Your task to perform on an android device: uninstall "Facebook Lite" Image 0: 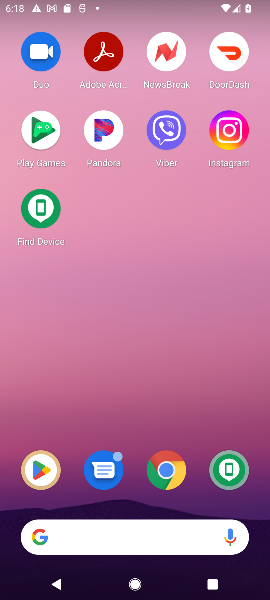
Step 0: press home button
Your task to perform on an android device: uninstall "Facebook Lite" Image 1: 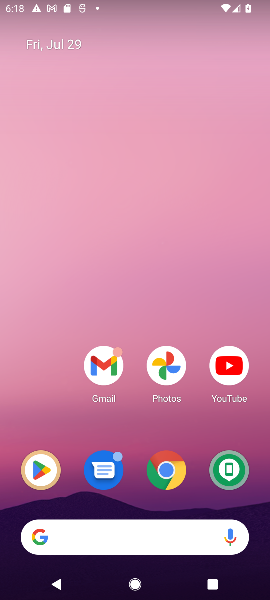
Step 1: drag from (199, 416) to (207, 30)
Your task to perform on an android device: uninstall "Facebook Lite" Image 2: 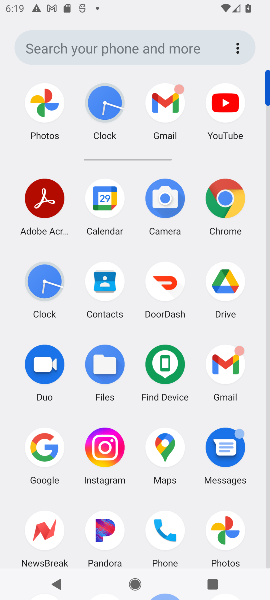
Step 2: drag from (188, 492) to (197, 294)
Your task to perform on an android device: uninstall "Facebook Lite" Image 3: 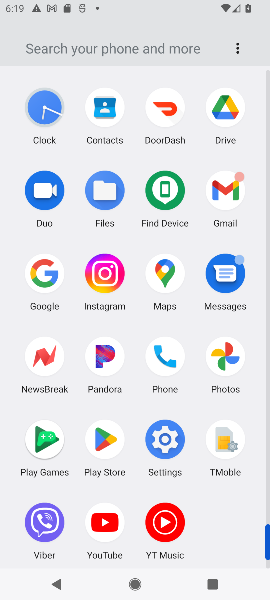
Step 3: click (111, 435)
Your task to perform on an android device: uninstall "Facebook Lite" Image 4: 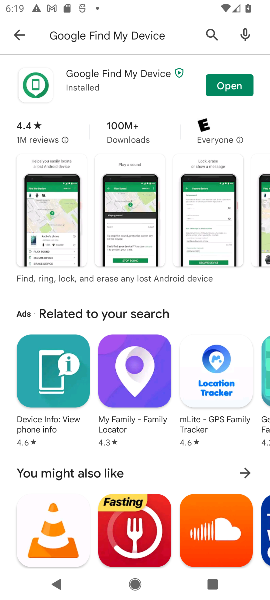
Step 4: click (128, 35)
Your task to perform on an android device: uninstall "Facebook Lite" Image 5: 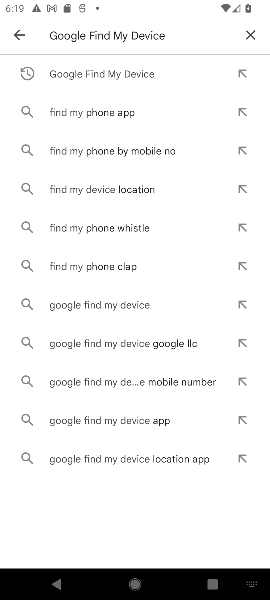
Step 5: click (251, 42)
Your task to perform on an android device: uninstall "Facebook Lite" Image 6: 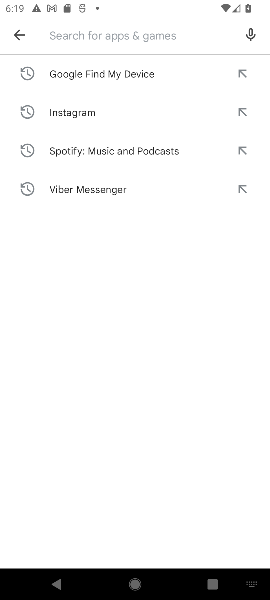
Step 6: type "Facebook Lite"
Your task to perform on an android device: uninstall "Facebook Lite" Image 7: 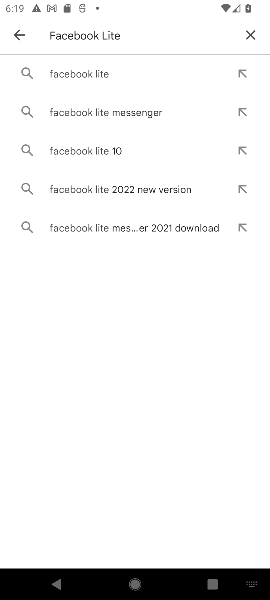
Step 7: press enter
Your task to perform on an android device: uninstall "Facebook Lite" Image 8: 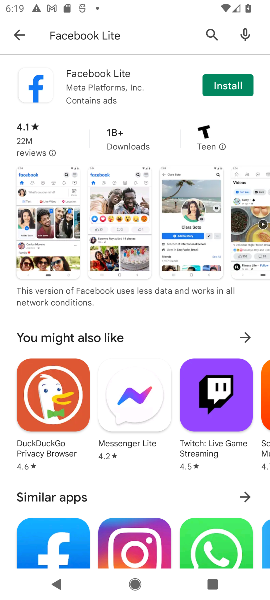
Step 8: task complete